Your task to perform on an android device: turn off javascript in the chrome app Image 0: 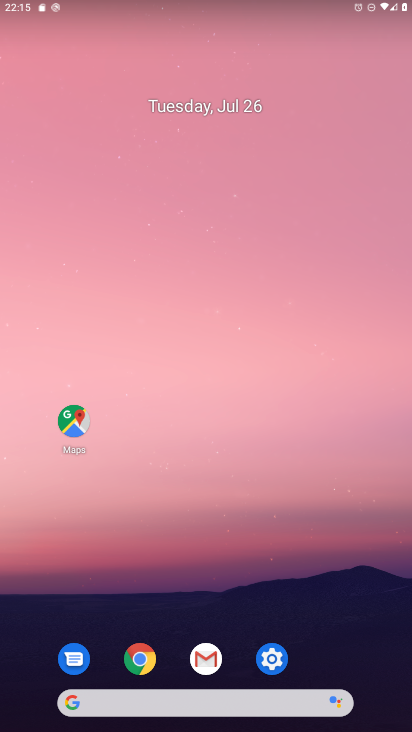
Step 0: click (132, 657)
Your task to perform on an android device: turn off javascript in the chrome app Image 1: 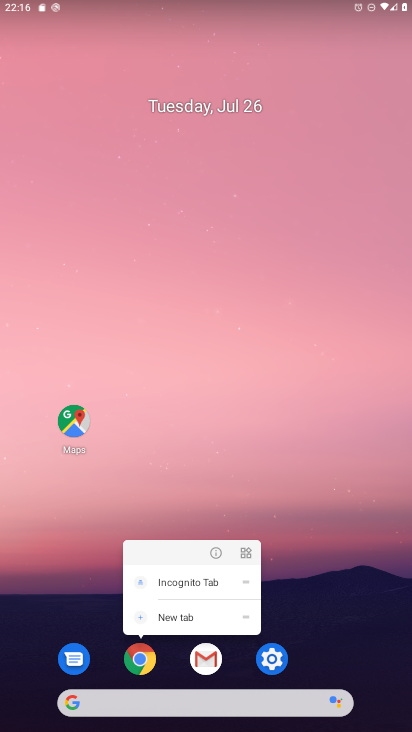
Step 1: click (137, 665)
Your task to perform on an android device: turn off javascript in the chrome app Image 2: 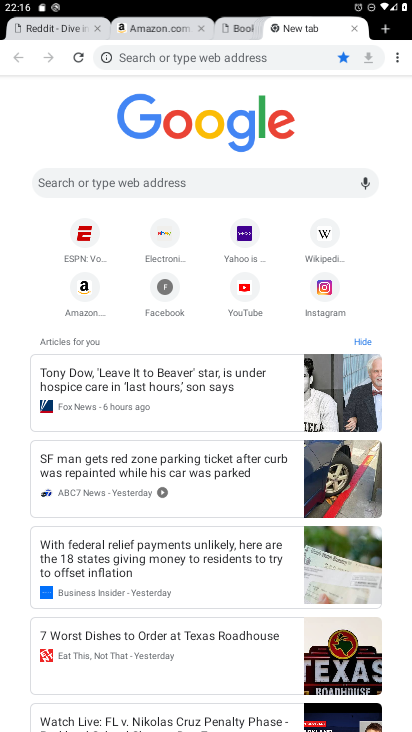
Step 2: click (393, 62)
Your task to perform on an android device: turn off javascript in the chrome app Image 3: 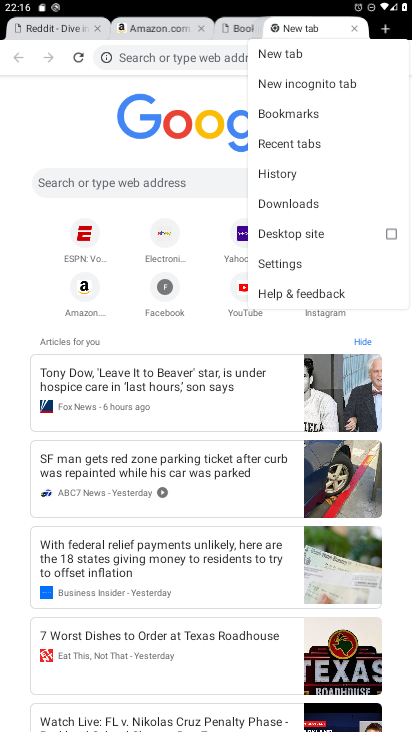
Step 3: click (278, 262)
Your task to perform on an android device: turn off javascript in the chrome app Image 4: 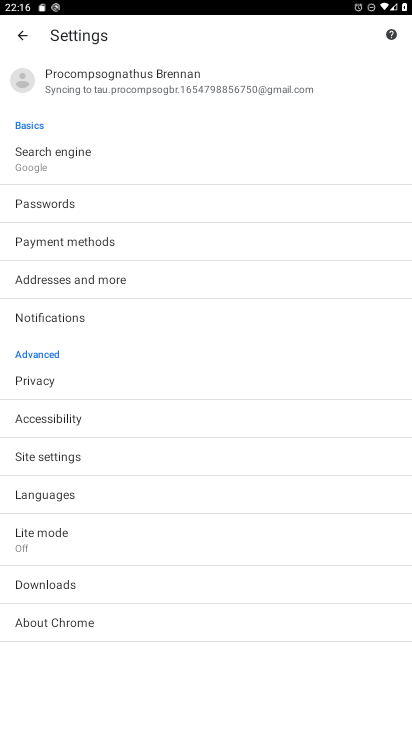
Step 4: click (57, 450)
Your task to perform on an android device: turn off javascript in the chrome app Image 5: 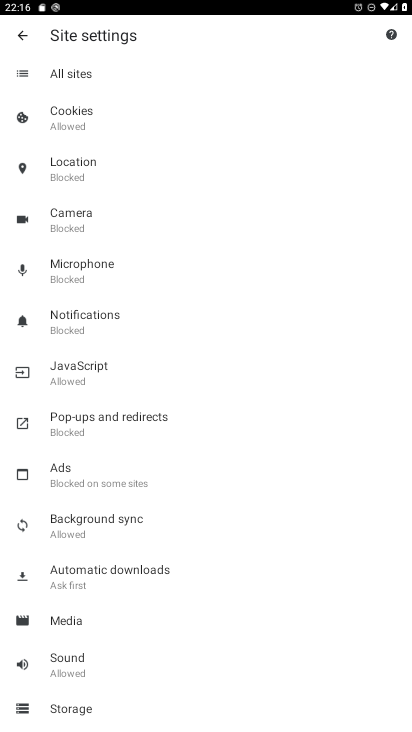
Step 5: click (88, 373)
Your task to perform on an android device: turn off javascript in the chrome app Image 6: 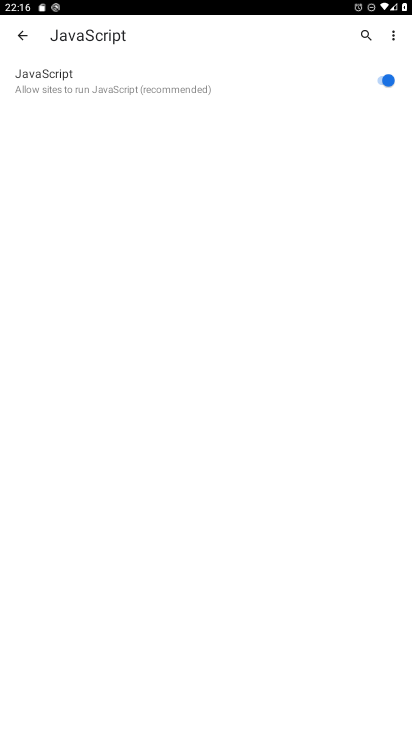
Step 6: click (386, 74)
Your task to perform on an android device: turn off javascript in the chrome app Image 7: 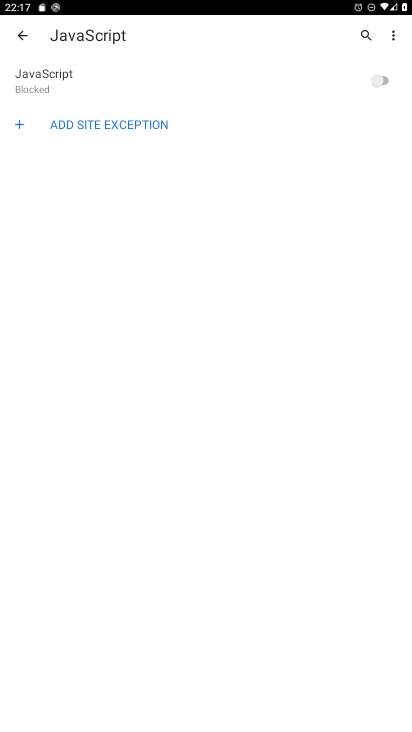
Step 7: task complete